Your task to perform on an android device: open app "Google Drive" Image 0: 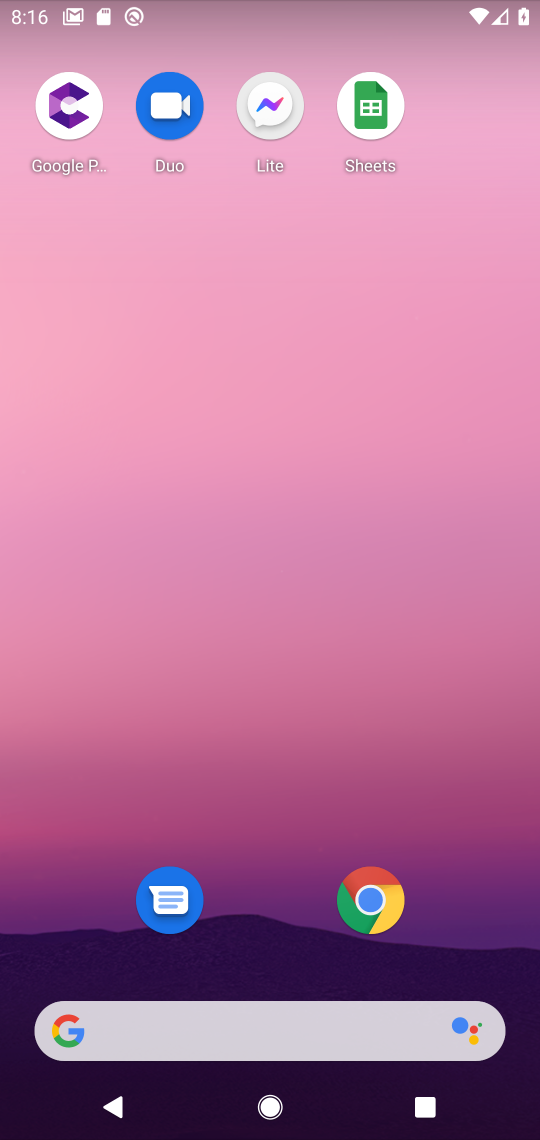
Step 0: drag from (251, 951) to (126, 295)
Your task to perform on an android device: open app "Google Drive" Image 1: 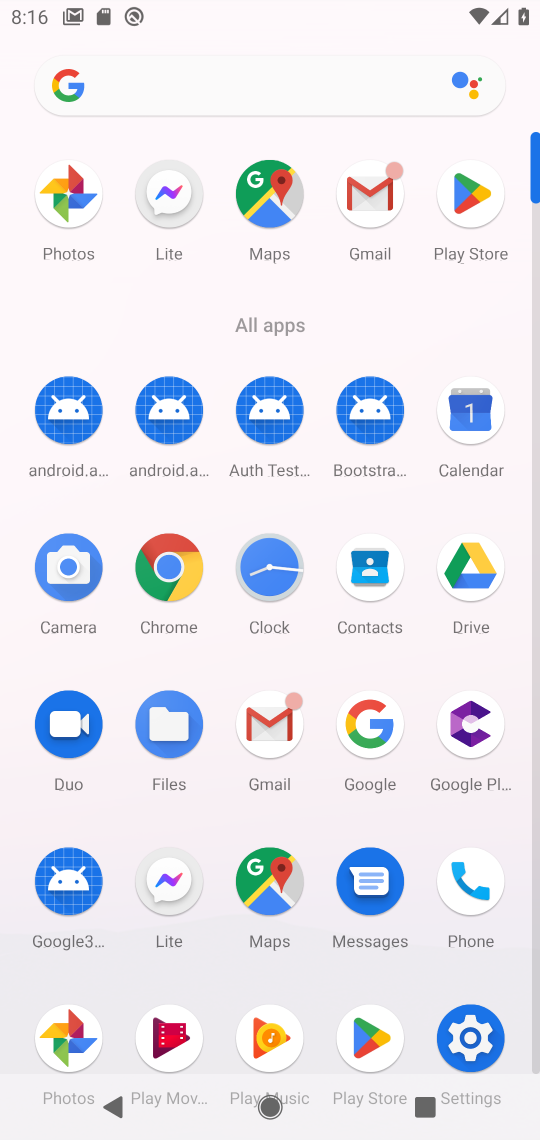
Step 1: click (351, 1039)
Your task to perform on an android device: open app "Google Drive" Image 2: 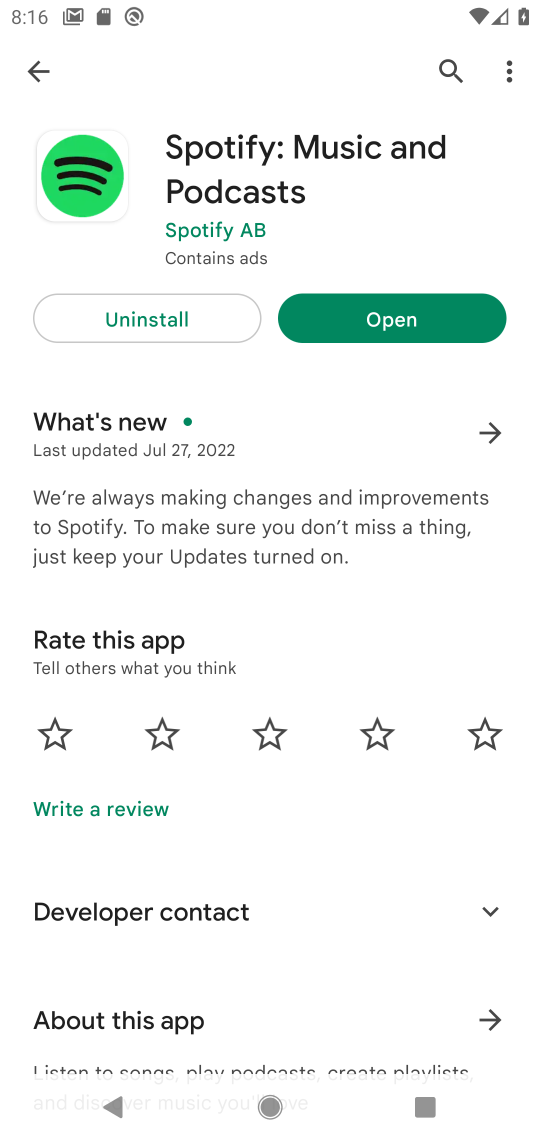
Step 2: click (32, 66)
Your task to perform on an android device: open app "Google Drive" Image 3: 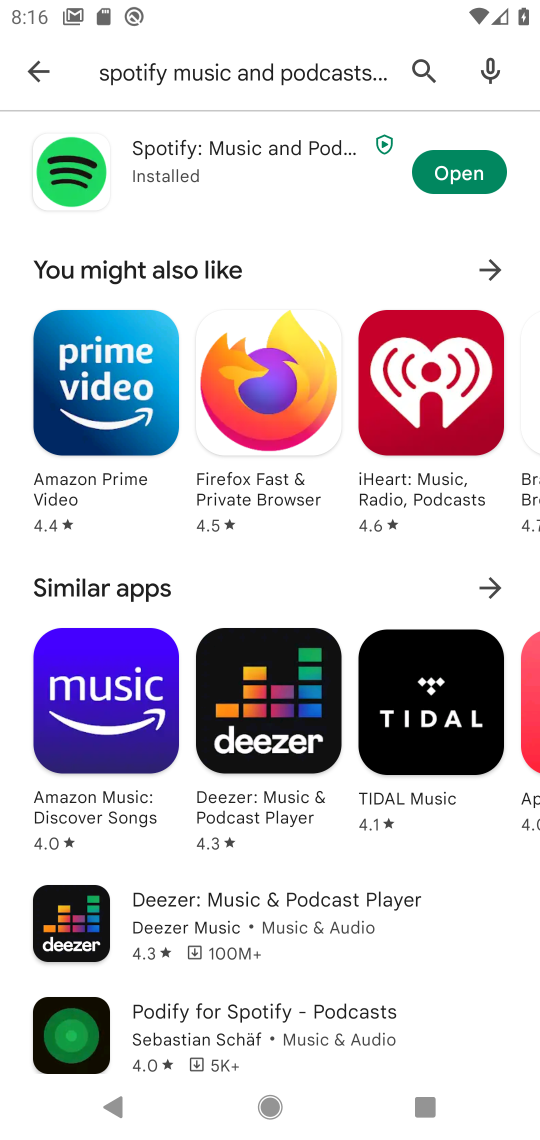
Step 3: click (27, 79)
Your task to perform on an android device: open app "Google Drive" Image 4: 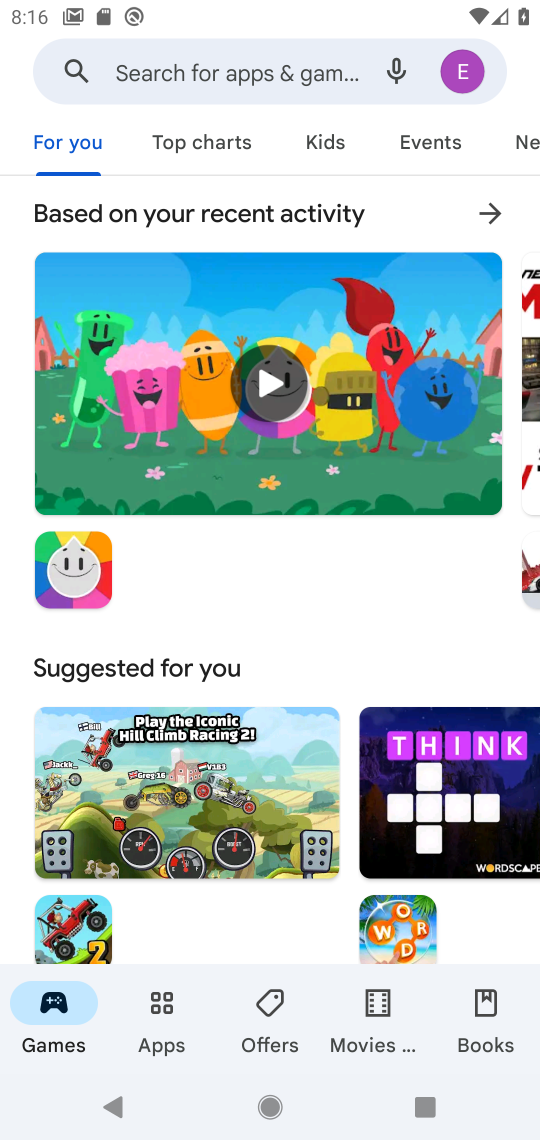
Step 4: click (125, 52)
Your task to perform on an android device: open app "Google Drive" Image 5: 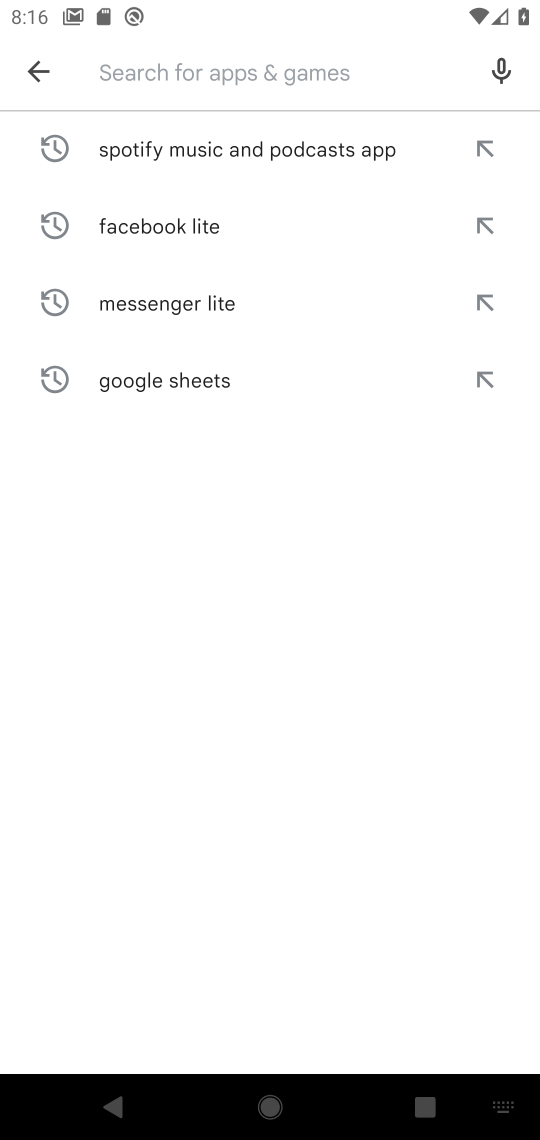
Step 5: type "Google Drive"
Your task to perform on an android device: open app "Google Drive" Image 6: 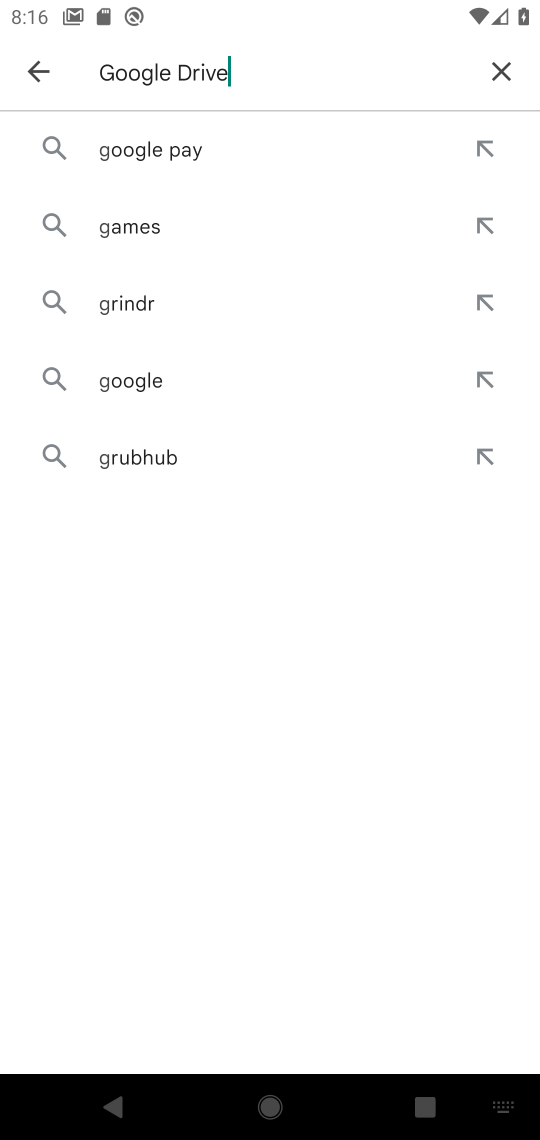
Step 6: type ""
Your task to perform on an android device: open app "Google Drive" Image 7: 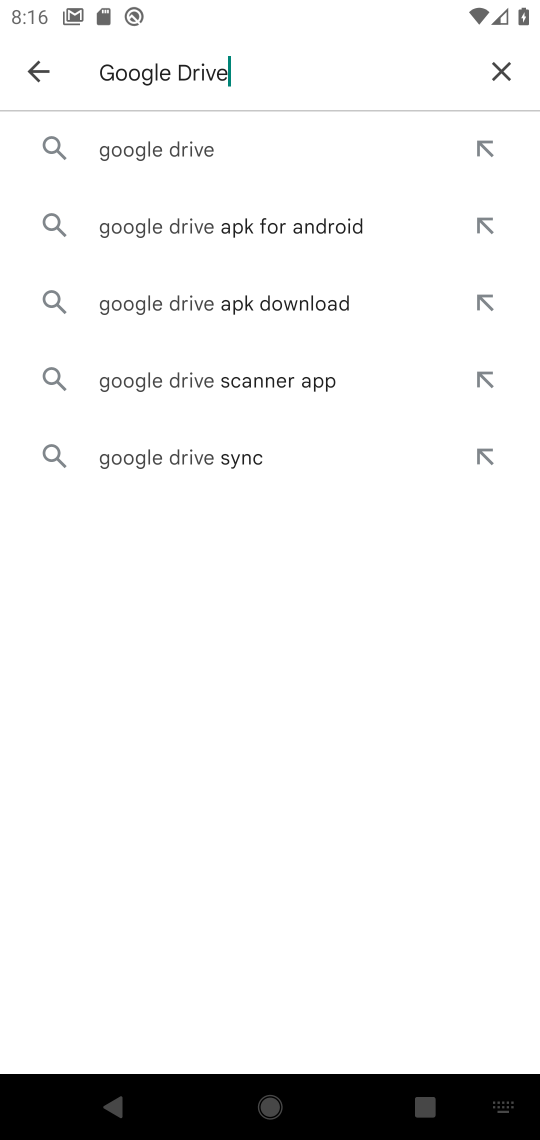
Step 7: click (202, 153)
Your task to perform on an android device: open app "Google Drive" Image 8: 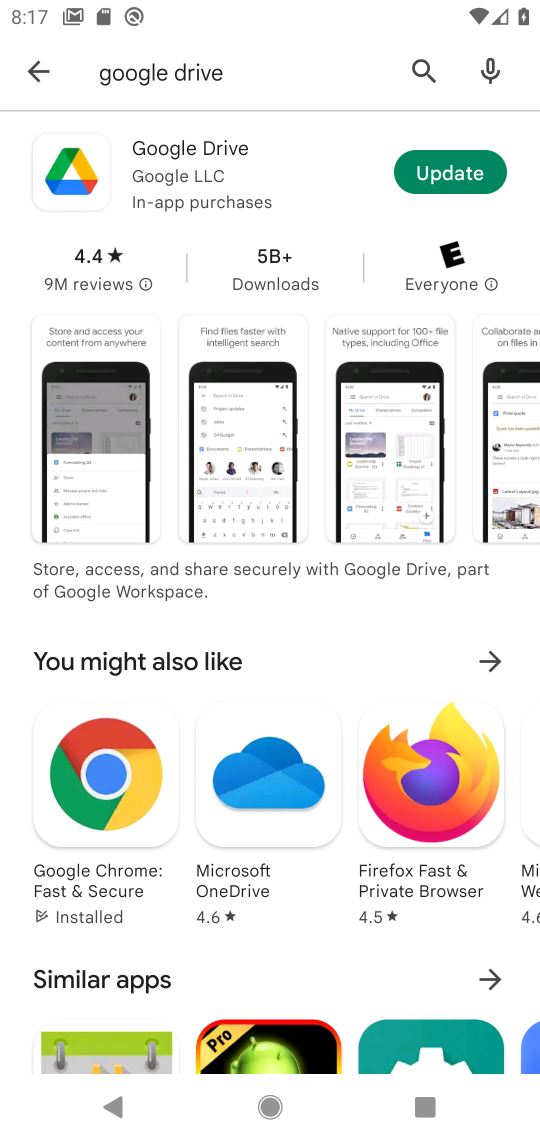
Step 8: click (440, 172)
Your task to perform on an android device: open app "Google Drive" Image 9: 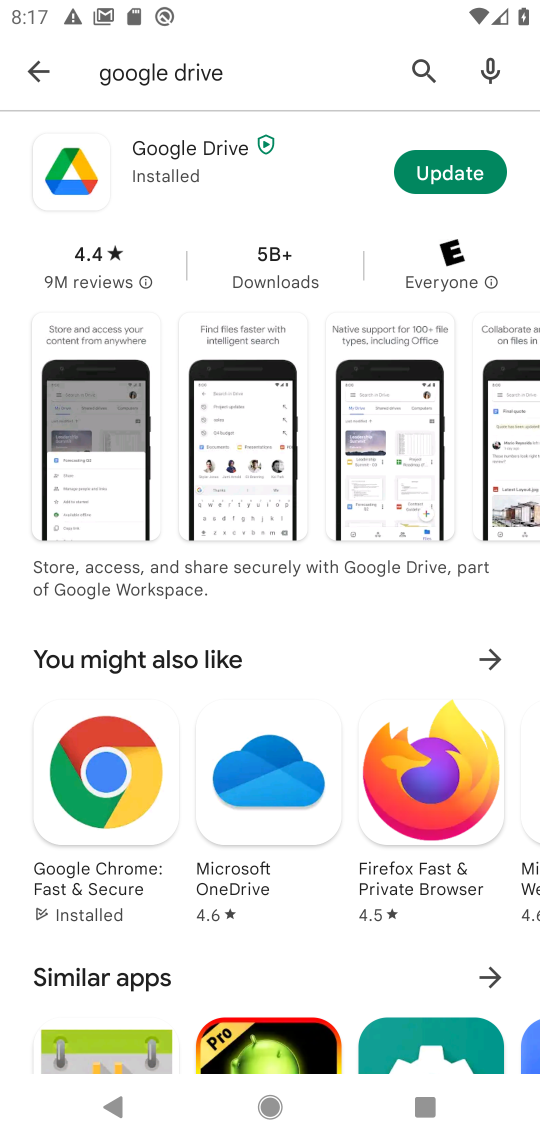
Step 9: click (37, 164)
Your task to perform on an android device: open app "Google Drive" Image 10: 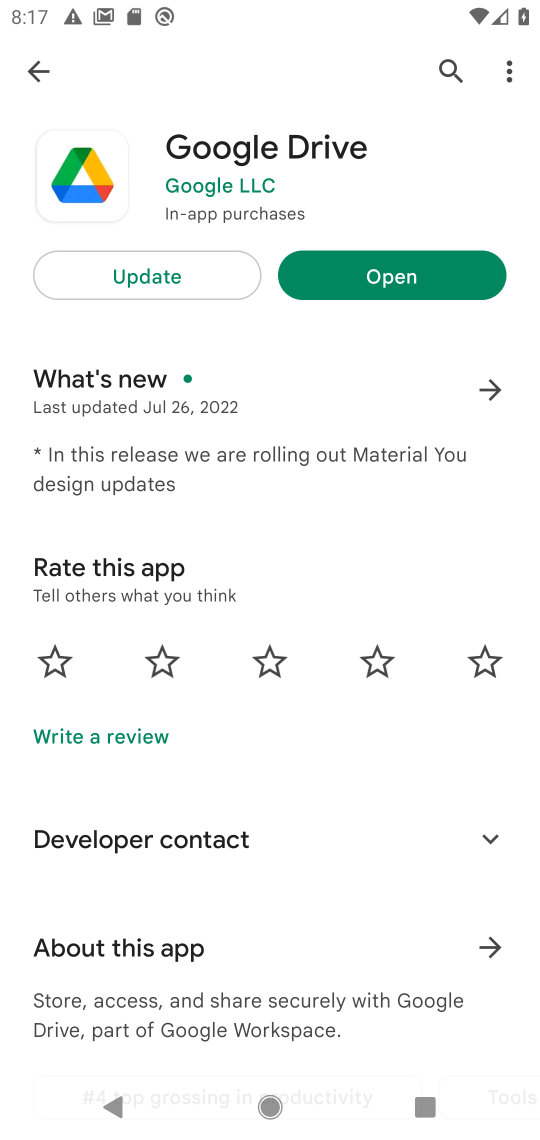
Step 10: click (364, 264)
Your task to perform on an android device: open app "Google Drive" Image 11: 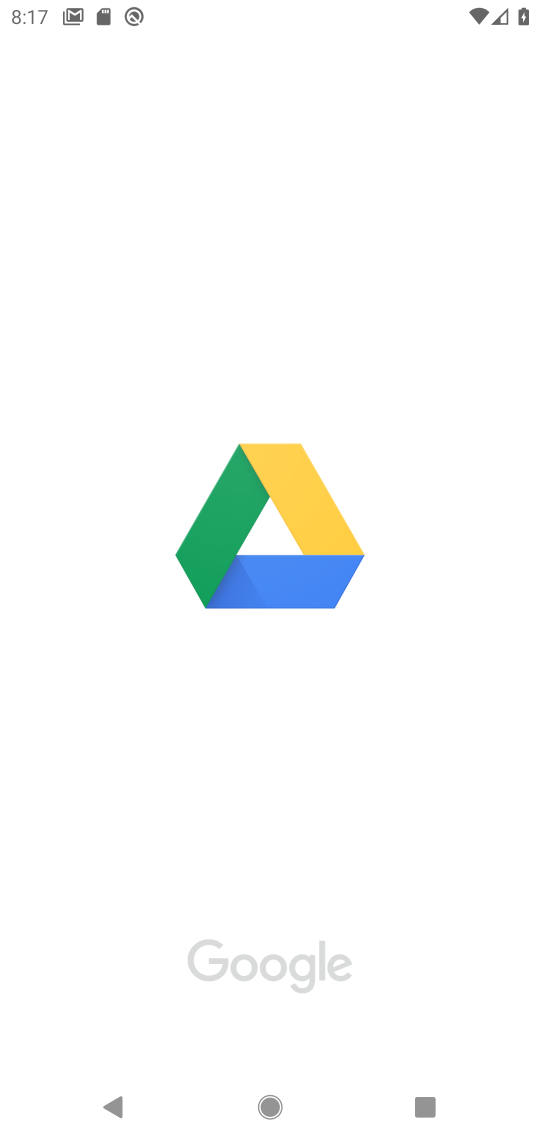
Step 11: task complete